Your task to perform on an android device: add a contact in the contacts app Image 0: 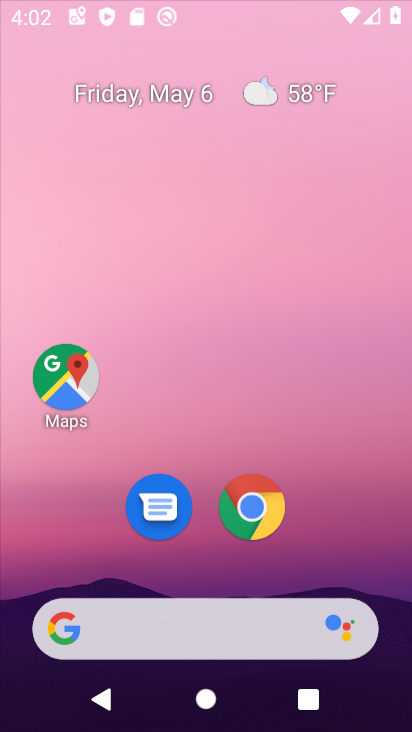
Step 0: click (291, 201)
Your task to perform on an android device: add a contact in the contacts app Image 1: 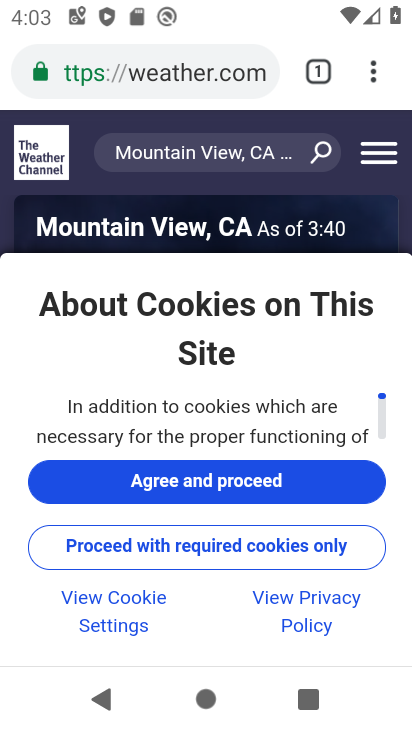
Step 1: press home button
Your task to perform on an android device: add a contact in the contacts app Image 2: 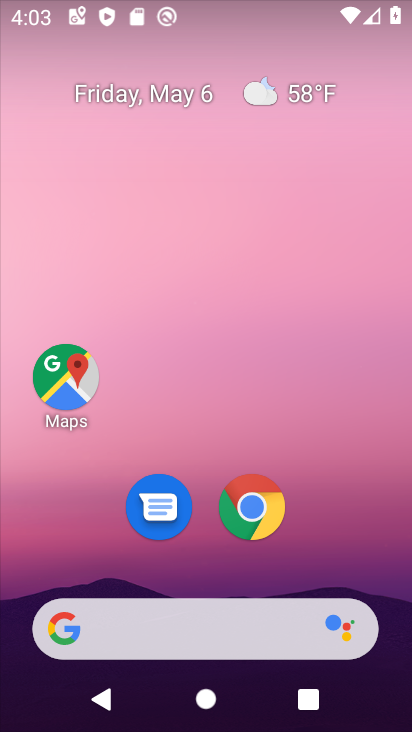
Step 2: drag from (339, 551) to (282, 130)
Your task to perform on an android device: add a contact in the contacts app Image 3: 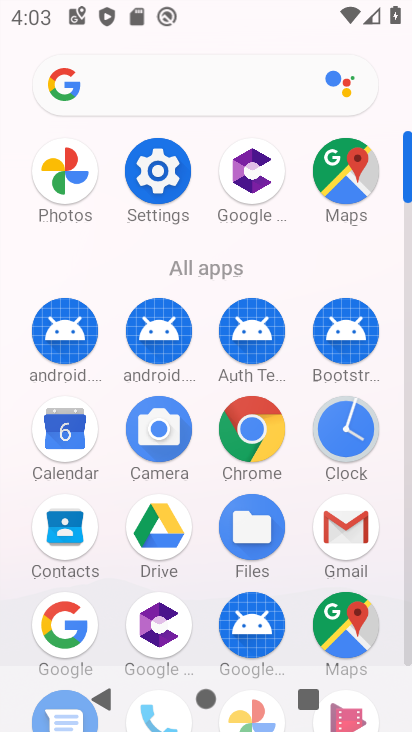
Step 3: click (66, 435)
Your task to perform on an android device: add a contact in the contacts app Image 4: 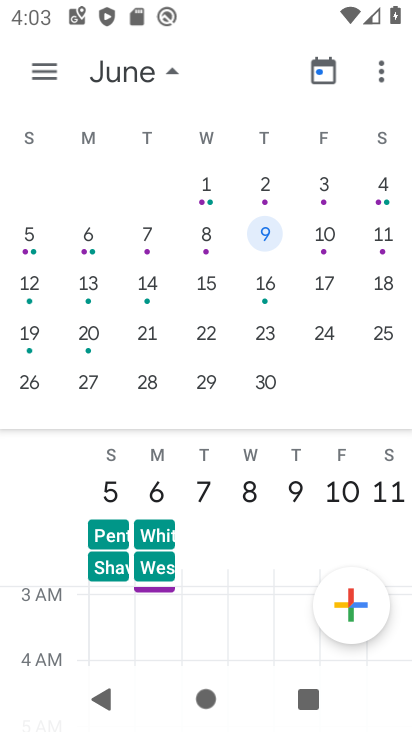
Step 4: press home button
Your task to perform on an android device: add a contact in the contacts app Image 5: 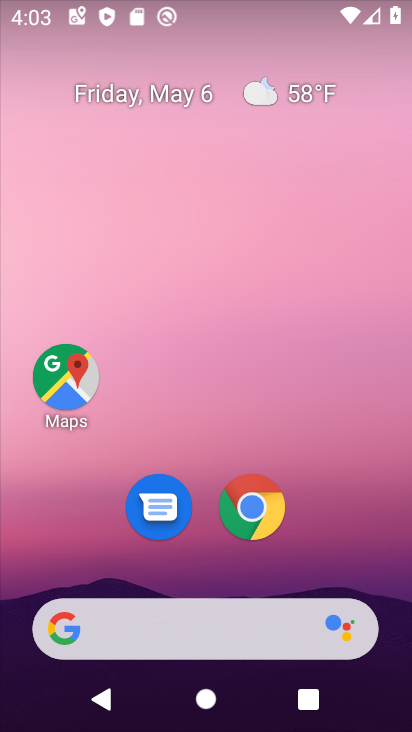
Step 5: drag from (348, 531) to (328, 39)
Your task to perform on an android device: add a contact in the contacts app Image 6: 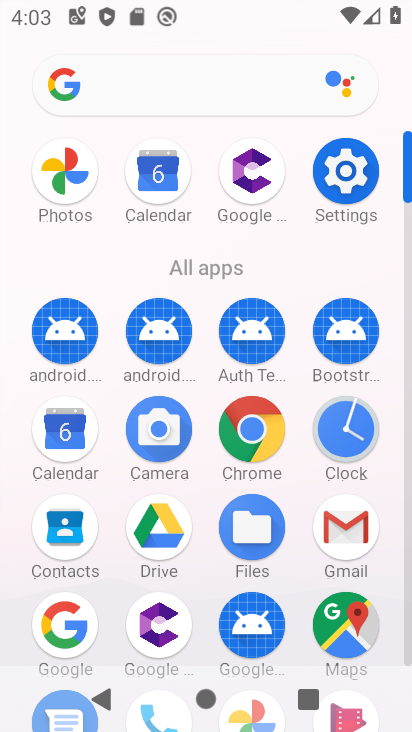
Step 6: click (56, 574)
Your task to perform on an android device: add a contact in the contacts app Image 7: 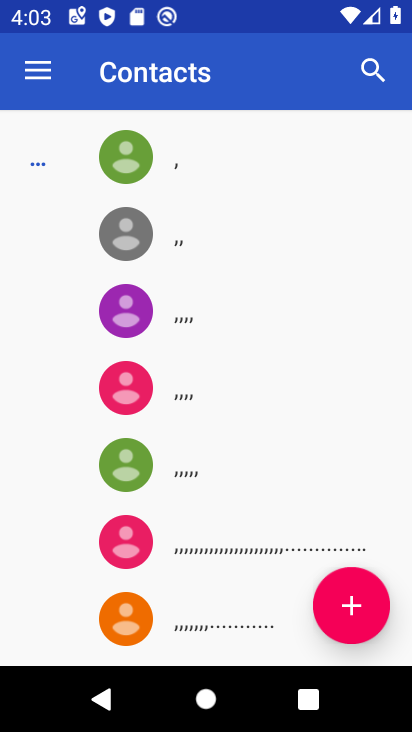
Step 7: click (359, 598)
Your task to perform on an android device: add a contact in the contacts app Image 8: 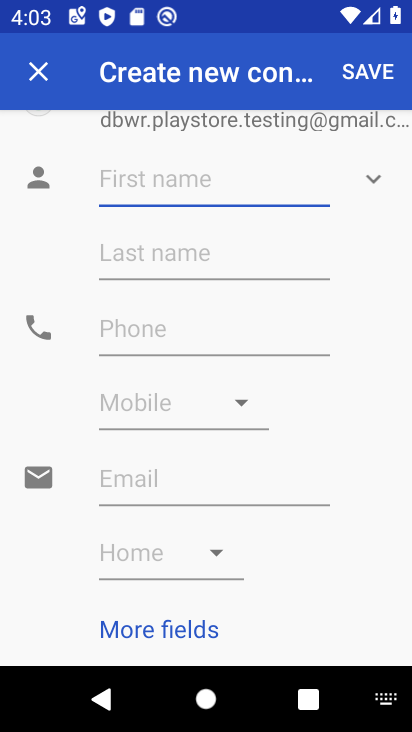
Step 8: click (232, 203)
Your task to perform on an android device: add a contact in the contacts app Image 9: 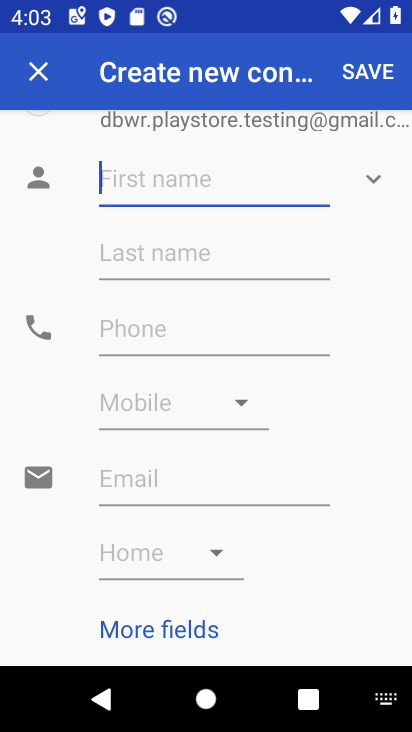
Step 9: type "njlnljn"
Your task to perform on an android device: add a contact in the contacts app Image 10: 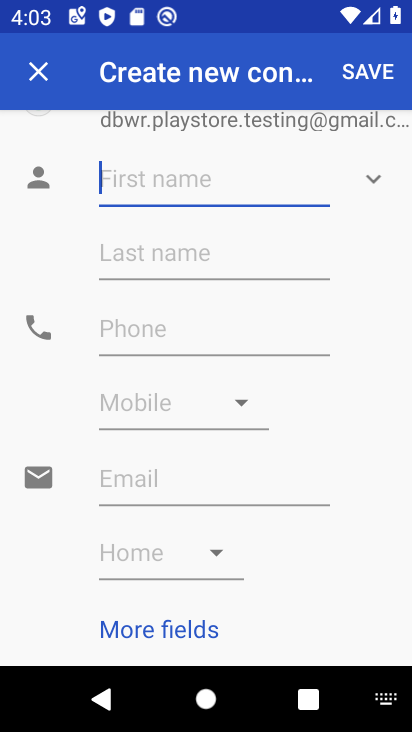
Step 10: click (120, 340)
Your task to perform on an android device: add a contact in the contacts app Image 11: 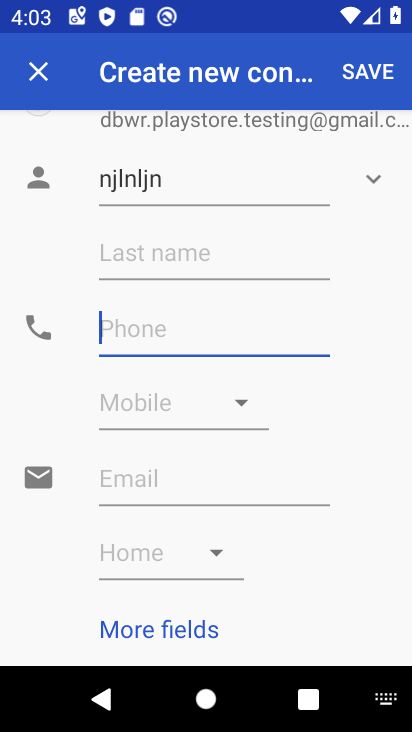
Step 11: type "8979878978"
Your task to perform on an android device: add a contact in the contacts app Image 12: 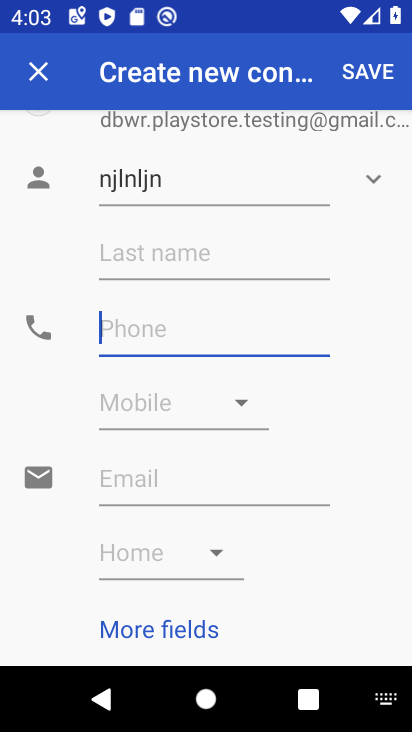
Step 12: click (377, 607)
Your task to perform on an android device: add a contact in the contacts app Image 13: 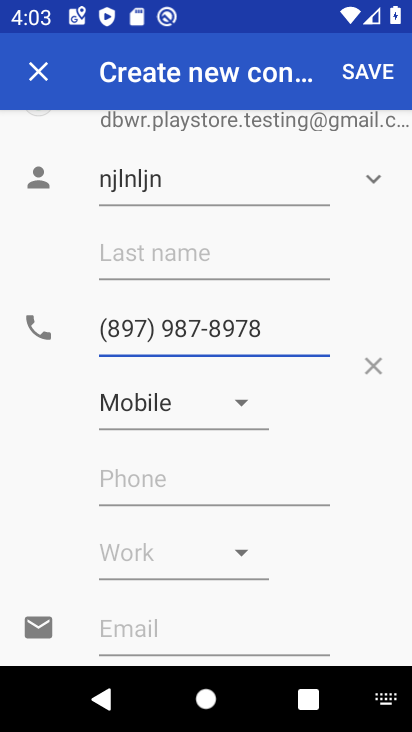
Step 13: click (346, 74)
Your task to perform on an android device: add a contact in the contacts app Image 14: 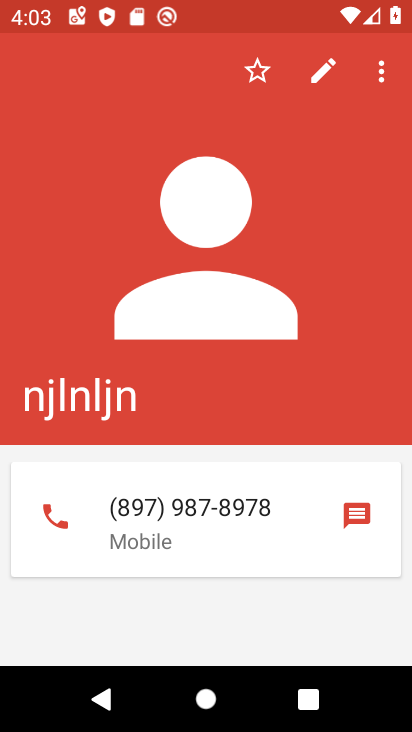
Step 14: task complete